Your task to perform on an android device: Go to Android settings Image 0: 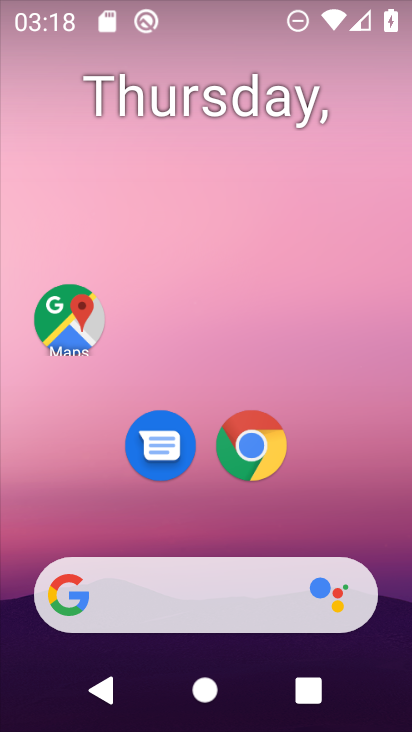
Step 0: drag from (355, 524) to (391, 445)
Your task to perform on an android device: Go to Android settings Image 1: 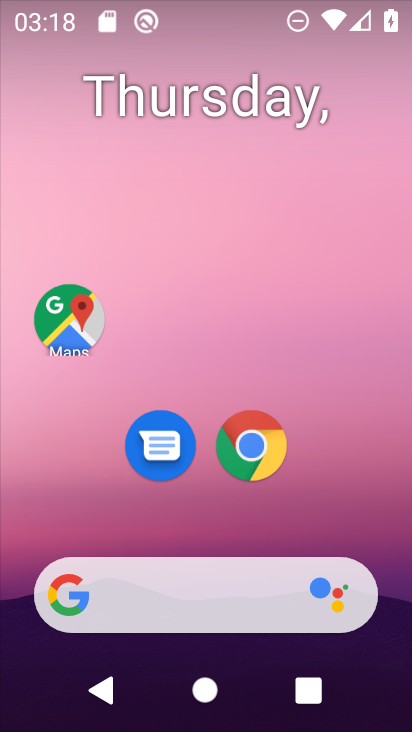
Step 1: drag from (339, 537) to (354, 7)
Your task to perform on an android device: Go to Android settings Image 2: 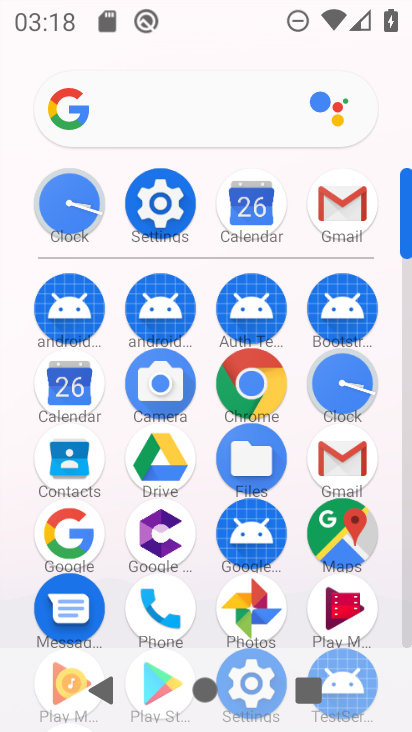
Step 2: click (165, 203)
Your task to perform on an android device: Go to Android settings Image 3: 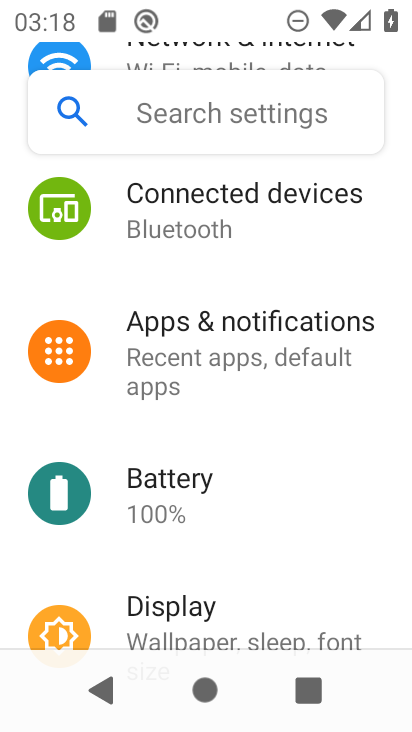
Step 3: task complete